Your task to perform on an android device: Check the news Image 0: 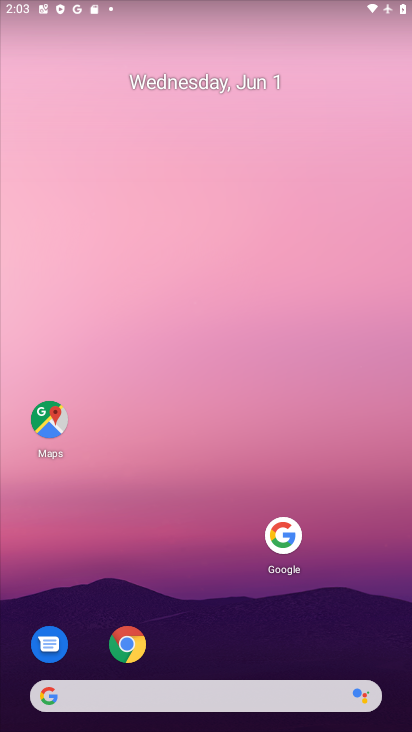
Step 0: press home button
Your task to perform on an android device: Check the news Image 1: 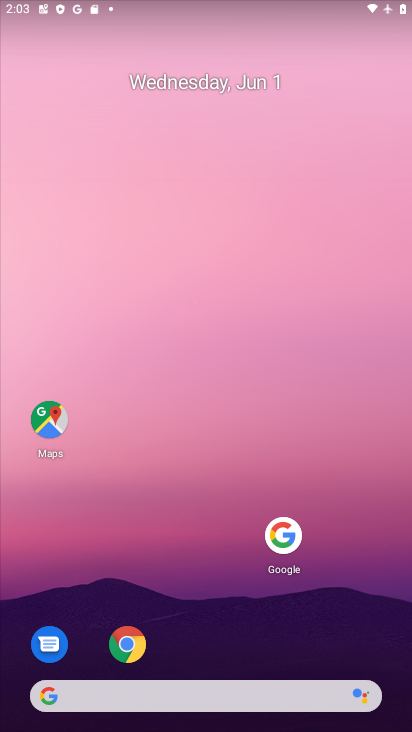
Step 1: click (52, 695)
Your task to perform on an android device: Check the news Image 2: 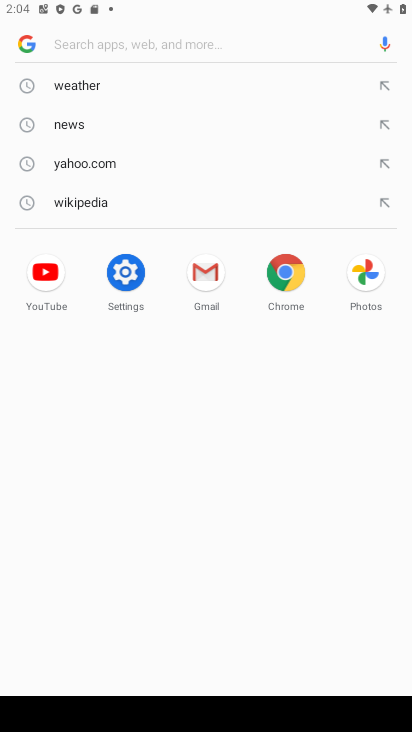
Step 2: click (78, 126)
Your task to perform on an android device: Check the news Image 3: 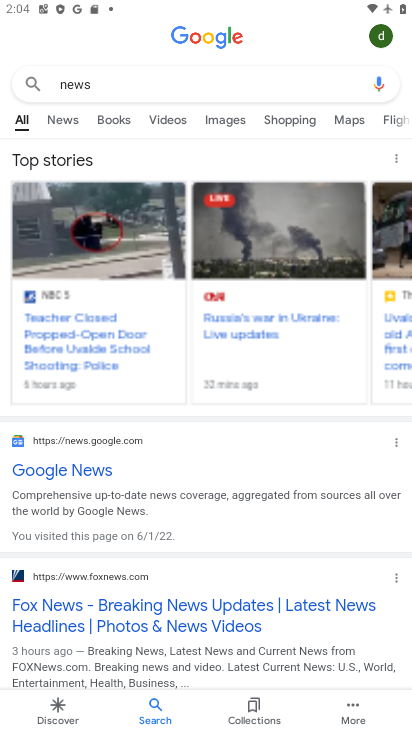
Step 3: click (63, 117)
Your task to perform on an android device: Check the news Image 4: 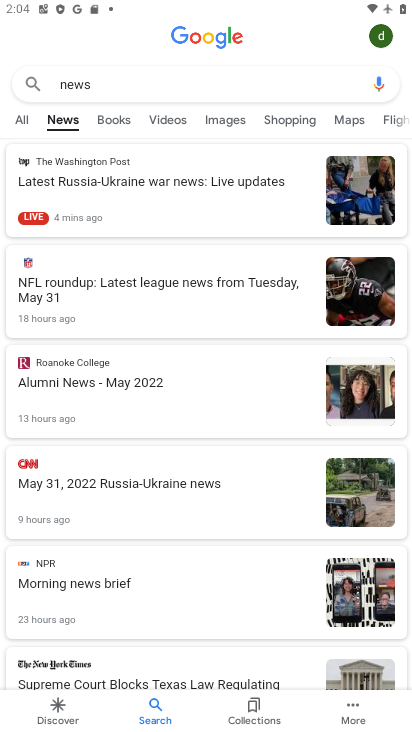
Step 4: task complete